Your task to perform on an android device: turn off smart reply in the gmail app Image 0: 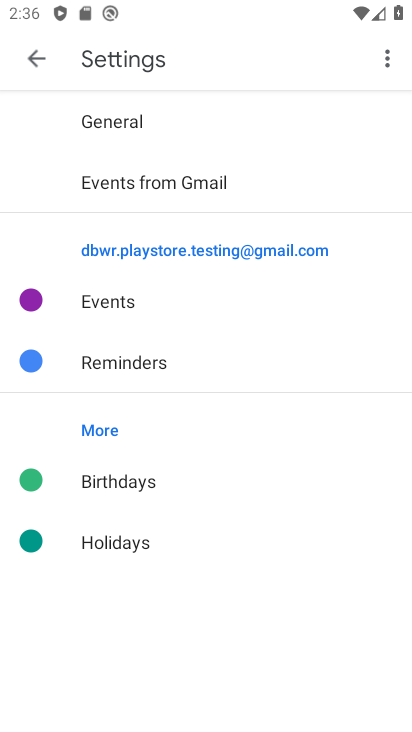
Step 0: press home button
Your task to perform on an android device: turn off smart reply in the gmail app Image 1: 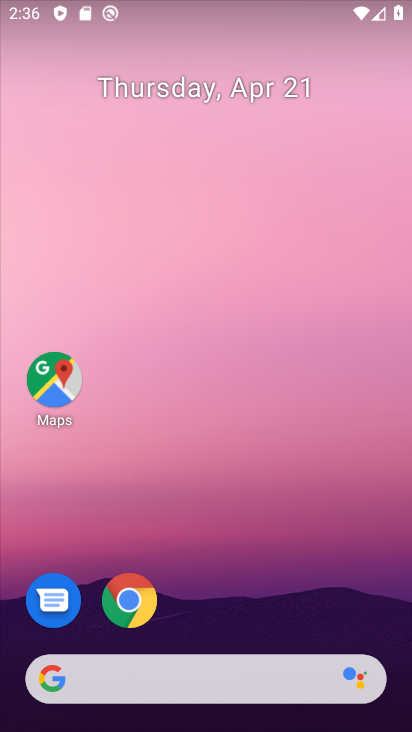
Step 1: drag from (67, 727) to (213, 194)
Your task to perform on an android device: turn off smart reply in the gmail app Image 2: 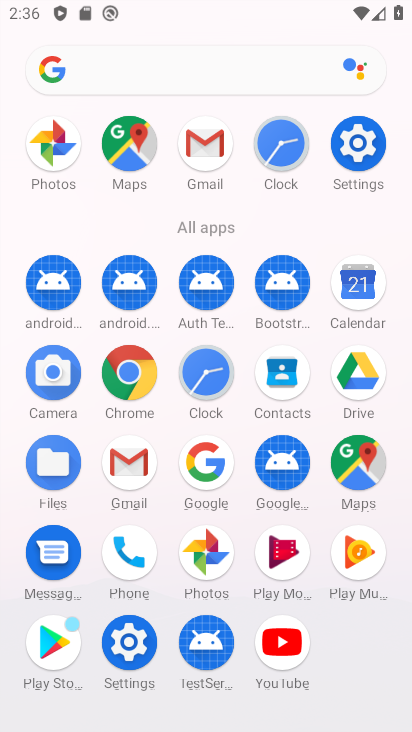
Step 2: click (205, 155)
Your task to perform on an android device: turn off smart reply in the gmail app Image 3: 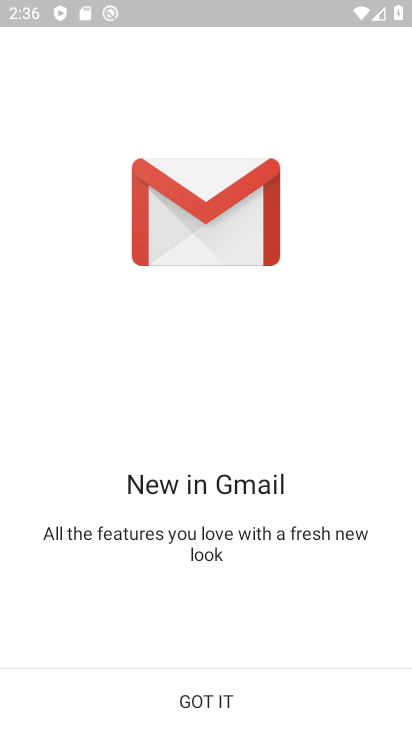
Step 3: click (233, 698)
Your task to perform on an android device: turn off smart reply in the gmail app Image 4: 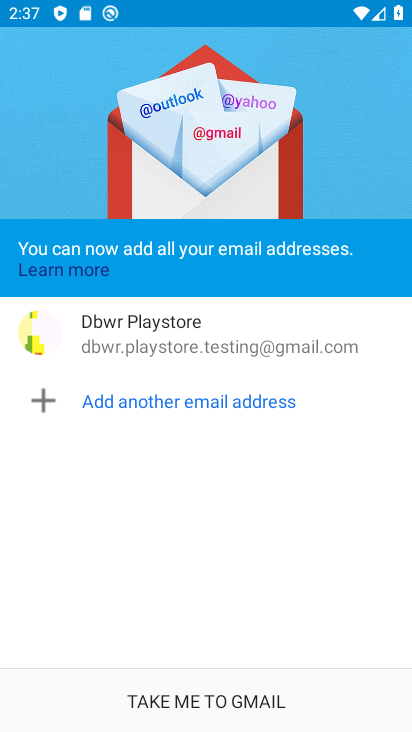
Step 4: click (164, 695)
Your task to perform on an android device: turn off smart reply in the gmail app Image 5: 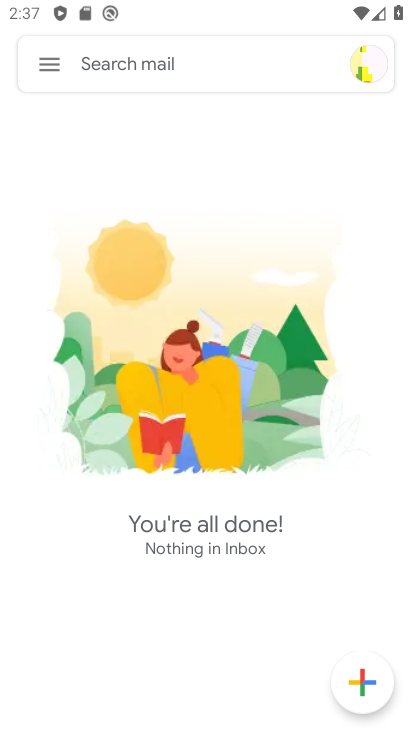
Step 5: click (47, 69)
Your task to perform on an android device: turn off smart reply in the gmail app Image 6: 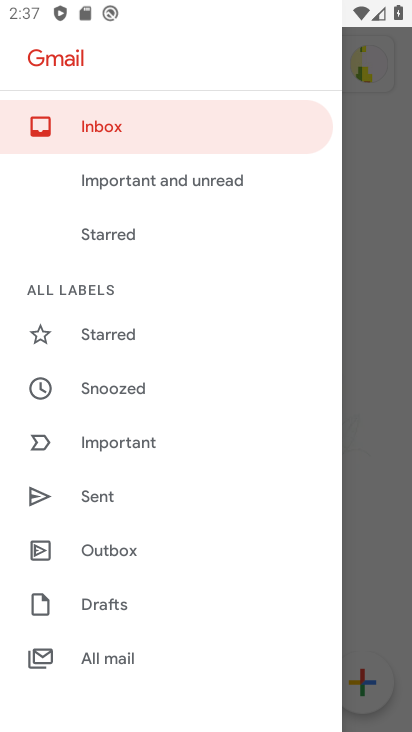
Step 6: drag from (63, 606) to (169, 235)
Your task to perform on an android device: turn off smart reply in the gmail app Image 7: 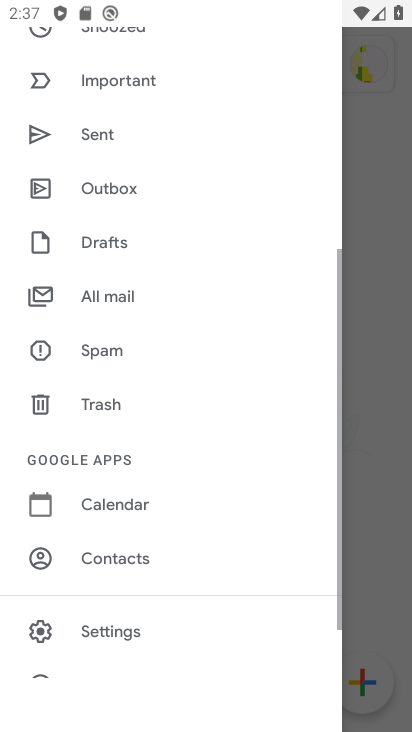
Step 7: click (58, 626)
Your task to perform on an android device: turn off smart reply in the gmail app Image 8: 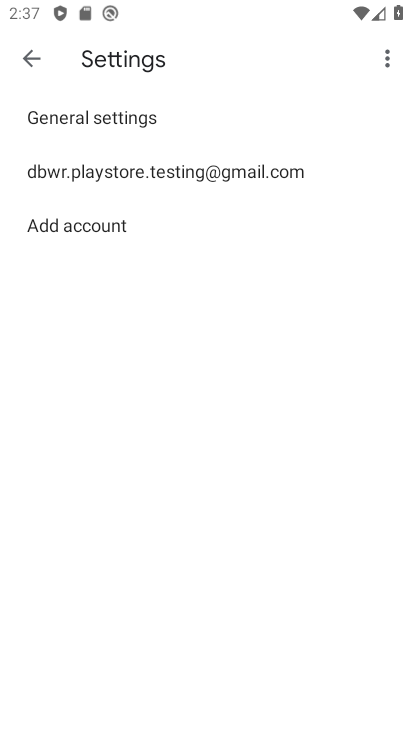
Step 8: click (160, 174)
Your task to perform on an android device: turn off smart reply in the gmail app Image 9: 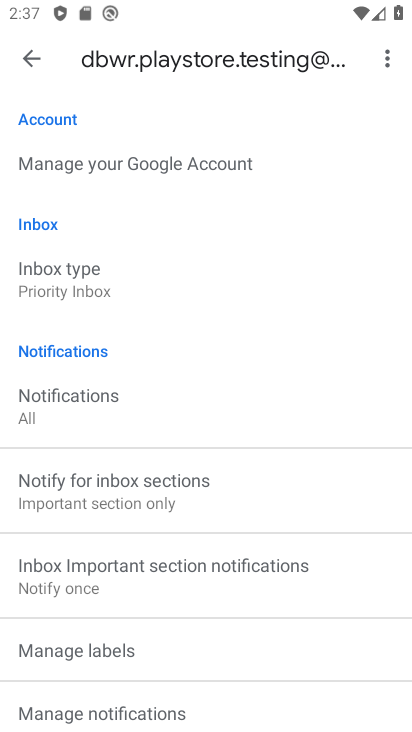
Step 9: drag from (147, 610) to (267, 278)
Your task to perform on an android device: turn off smart reply in the gmail app Image 10: 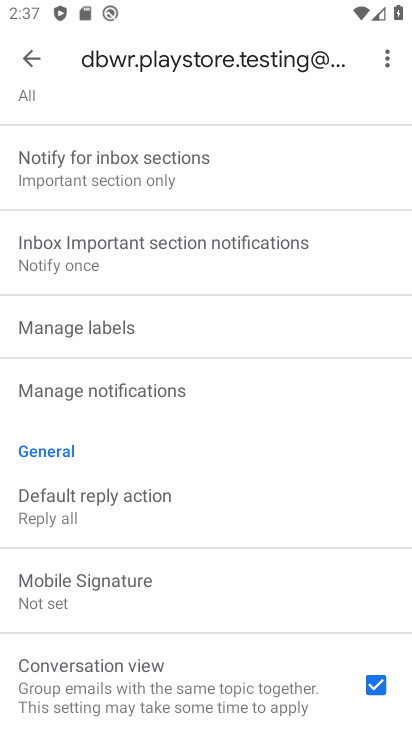
Step 10: drag from (179, 623) to (328, 240)
Your task to perform on an android device: turn off smart reply in the gmail app Image 11: 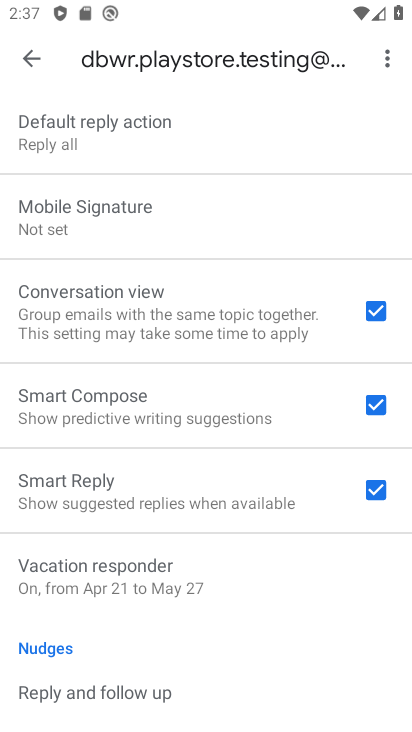
Step 11: click (371, 493)
Your task to perform on an android device: turn off smart reply in the gmail app Image 12: 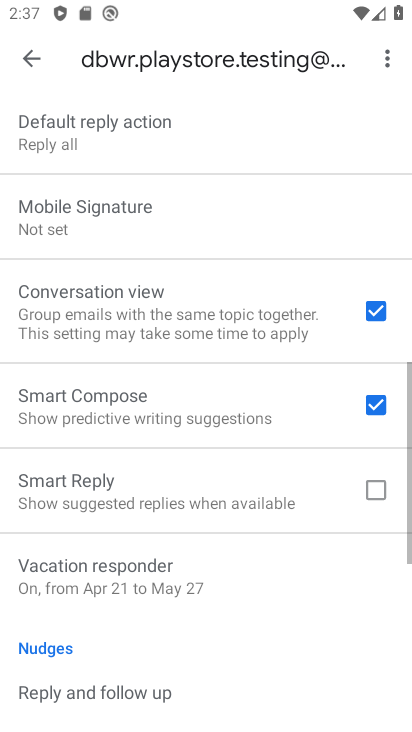
Step 12: task complete